Your task to perform on an android device: Show me recent news Image 0: 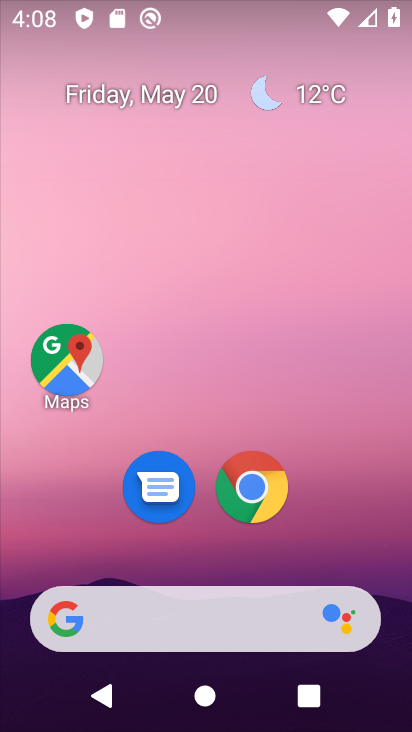
Step 0: drag from (303, 504) to (261, 150)
Your task to perform on an android device: Show me recent news Image 1: 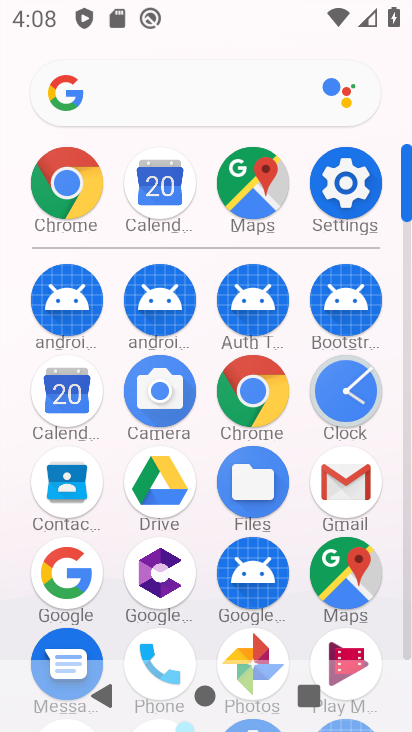
Step 1: click (60, 594)
Your task to perform on an android device: Show me recent news Image 2: 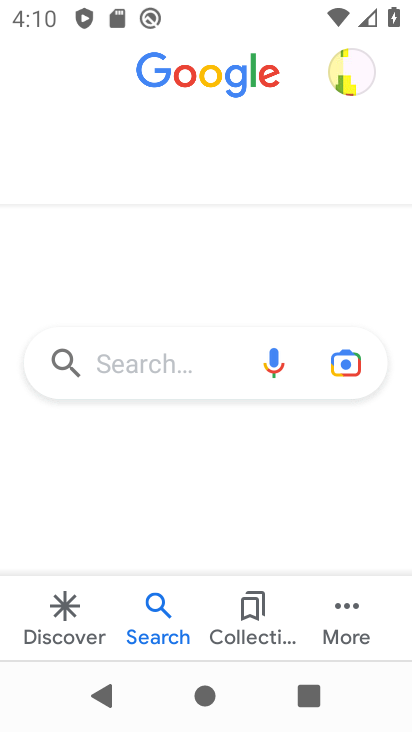
Step 2: click (148, 361)
Your task to perform on an android device: Show me recent news Image 3: 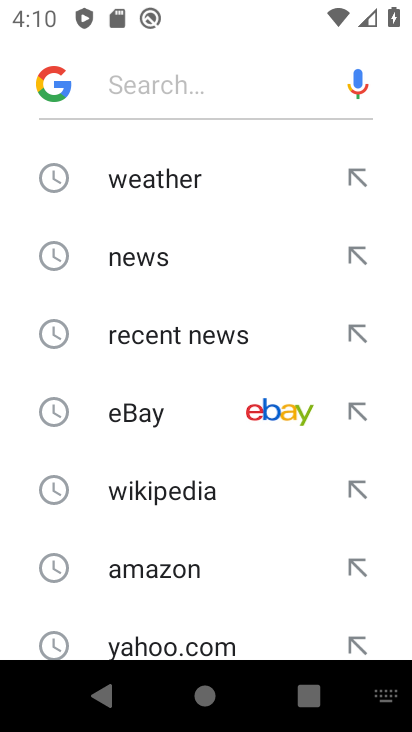
Step 3: click (159, 336)
Your task to perform on an android device: Show me recent news Image 4: 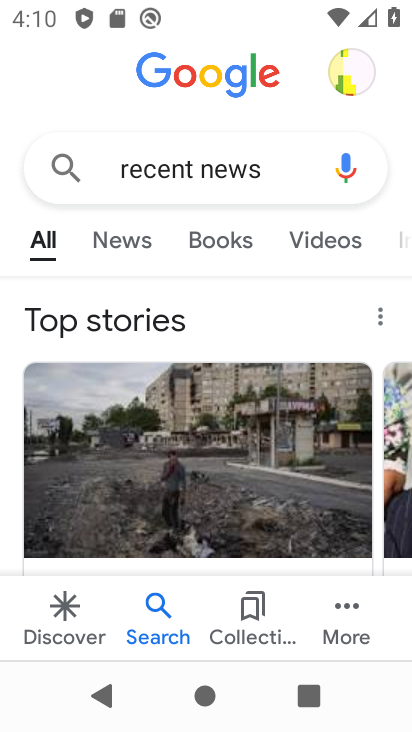
Step 4: task complete